Your task to perform on an android device: allow cookies in the chrome app Image 0: 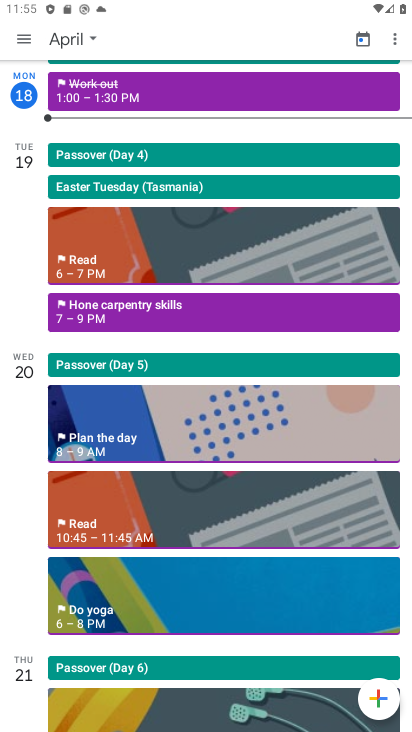
Step 0: press home button
Your task to perform on an android device: allow cookies in the chrome app Image 1: 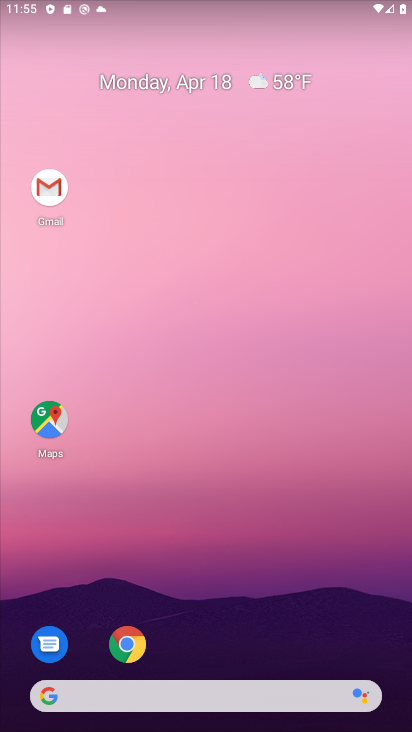
Step 1: click (131, 644)
Your task to perform on an android device: allow cookies in the chrome app Image 2: 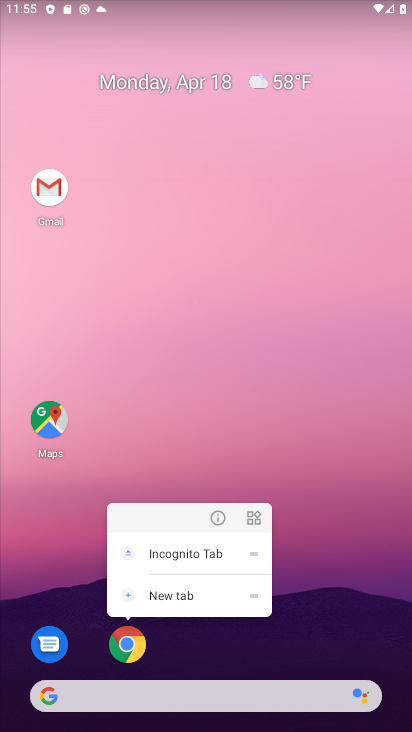
Step 2: click (139, 635)
Your task to perform on an android device: allow cookies in the chrome app Image 3: 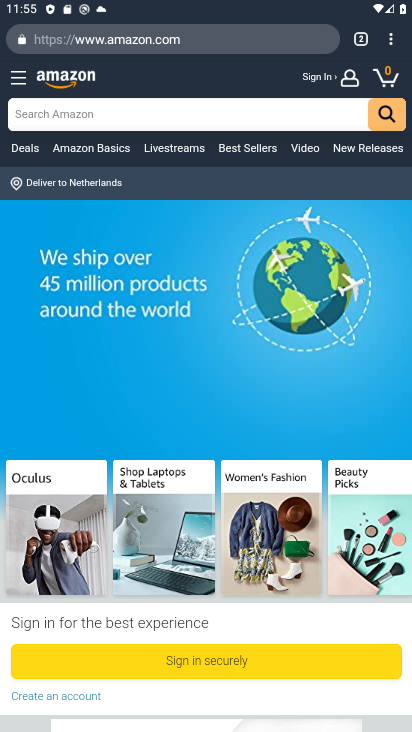
Step 3: click (386, 45)
Your task to perform on an android device: allow cookies in the chrome app Image 4: 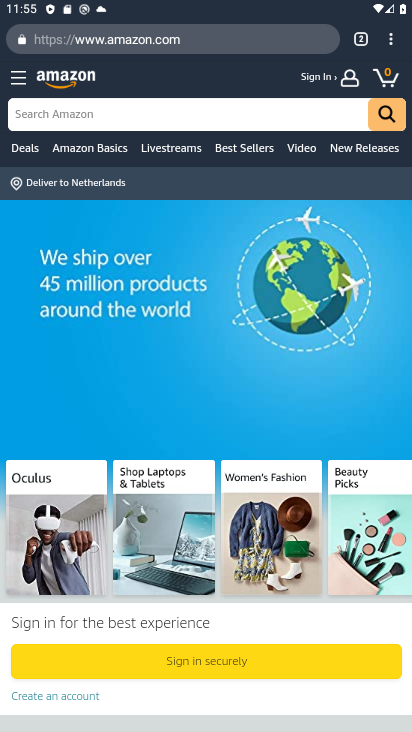
Step 4: drag from (393, 43) to (251, 468)
Your task to perform on an android device: allow cookies in the chrome app Image 5: 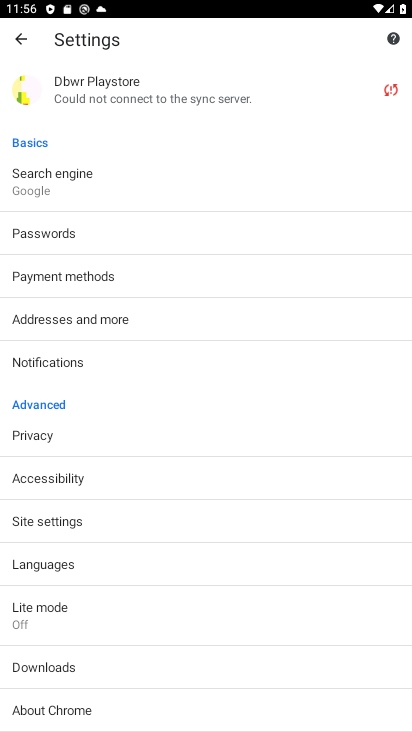
Step 5: click (113, 531)
Your task to perform on an android device: allow cookies in the chrome app Image 6: 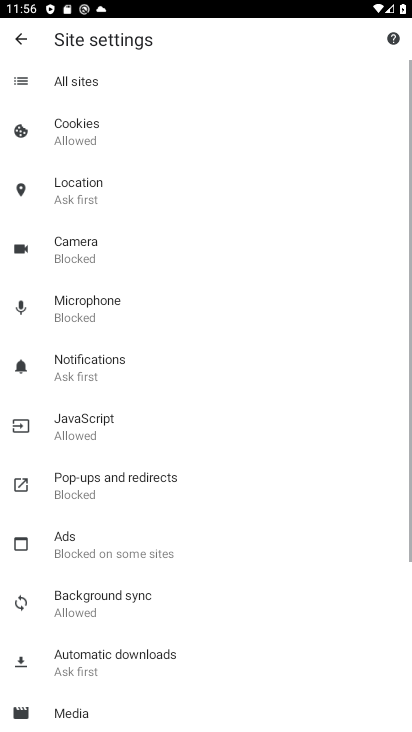
Step 6: drag from (121, 451) to (189, 174)
Your task to perform on an android device: allow cookies in the chrome app Image 7: 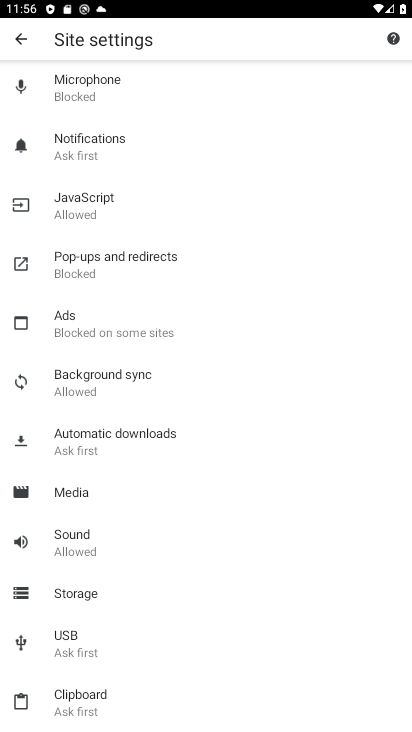
Step 7: drag from (254, 147) to (205, 429)
Your task to perform on an android device: allow cookies in the chrome app Image 8: 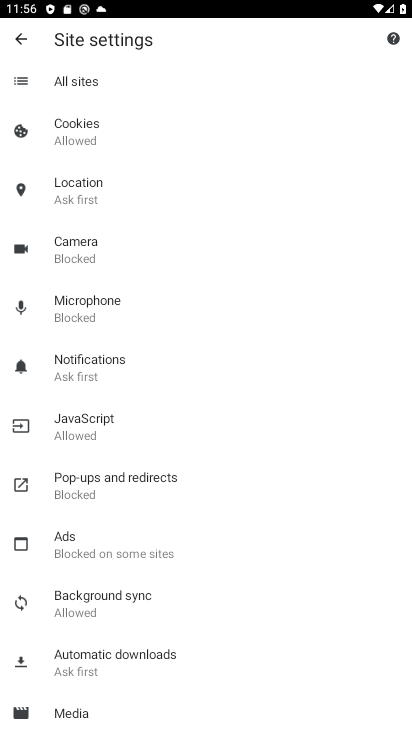
Step 8: click (163, 141)
Your task to perform on an android device: allow cookies in the chrome app Image 9: 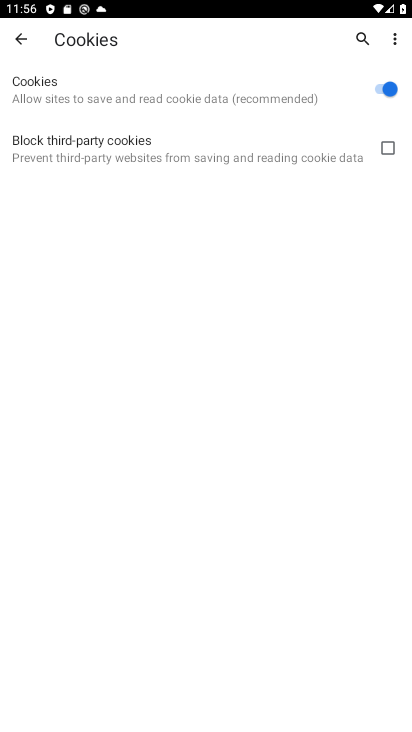
Step 9: task complete